Your task to perform on an android device: Open Chrome and go to settings Image 0: 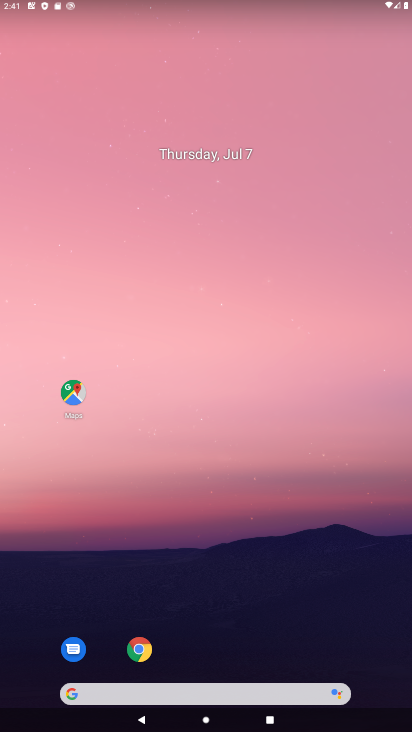
Step 0: click (138, 649)
Your task to perform on an android device: Open Chrome and go to settings Image 1: 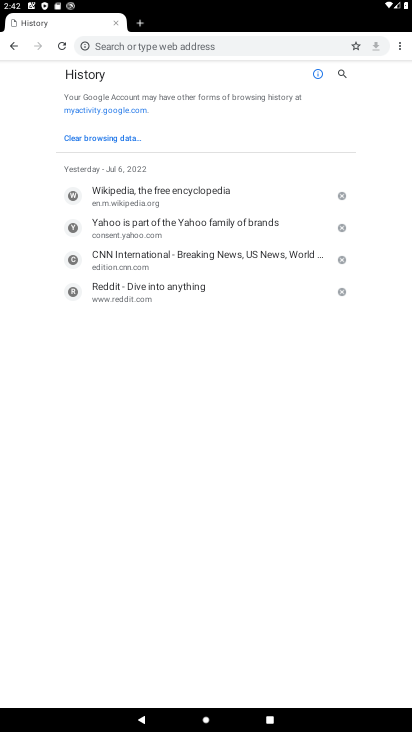
Step 1: task complete